Your task to perform on an android device: change timer sound Image 0: 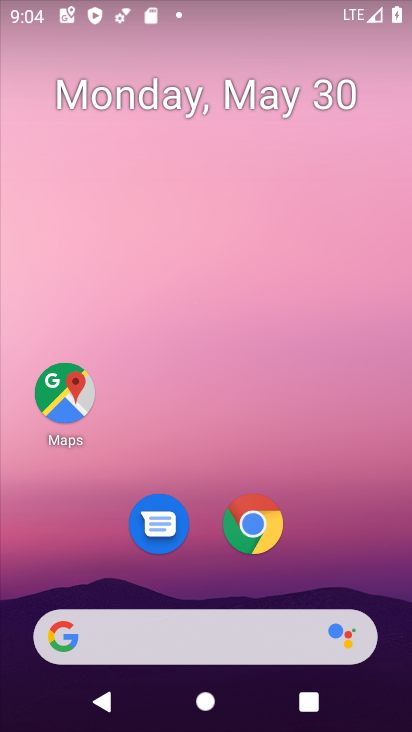
Step 0: drag from (340, 555) to (258, 62)
Your task to perform on an android device: change timer sound Image 1: 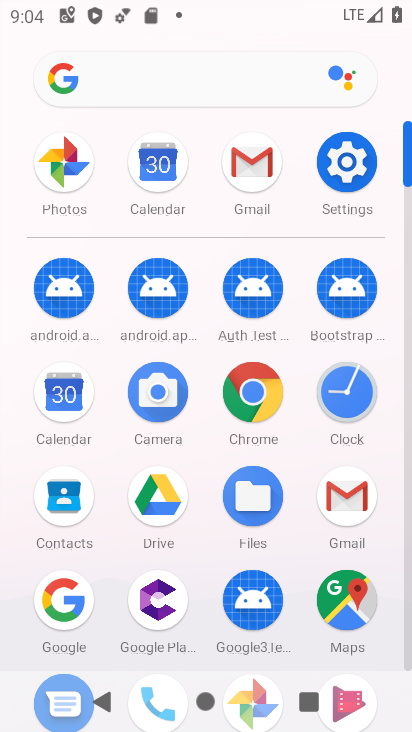
Step 1: click (344, 399)
Your task to perform on an android device: change timer sound Image 2: 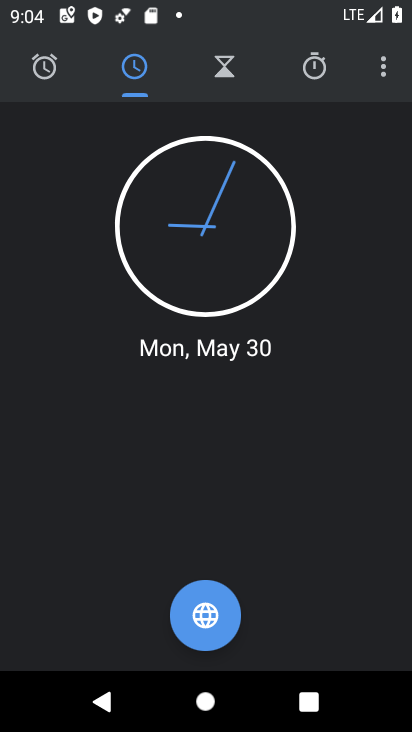
Step 2: click (390, 72)
Your task to perform on an android device: change timer sound Image 3: 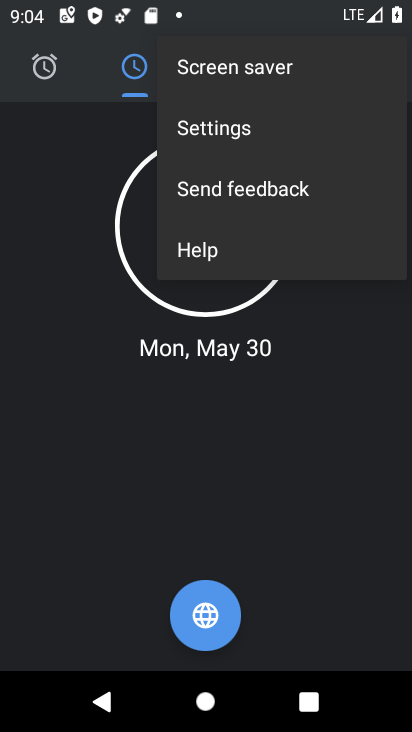
Step 3: click (292, 128)
Your task to perform on an android device: change timer sound Image 4: 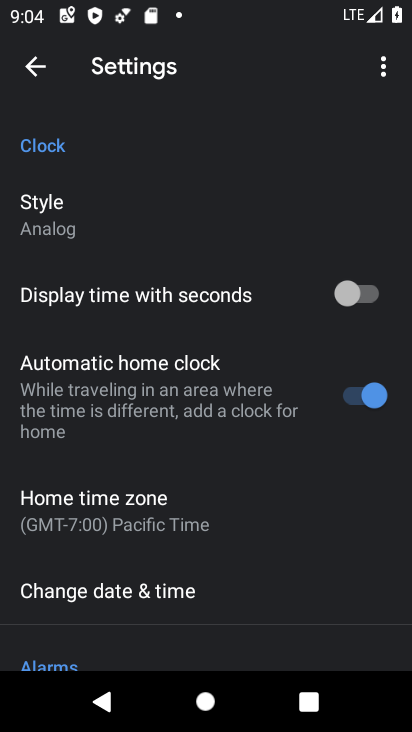
Step 4: drag from (249, 554) to (222, 0)
Your task to perform on an android device: change timer sound Image 5: 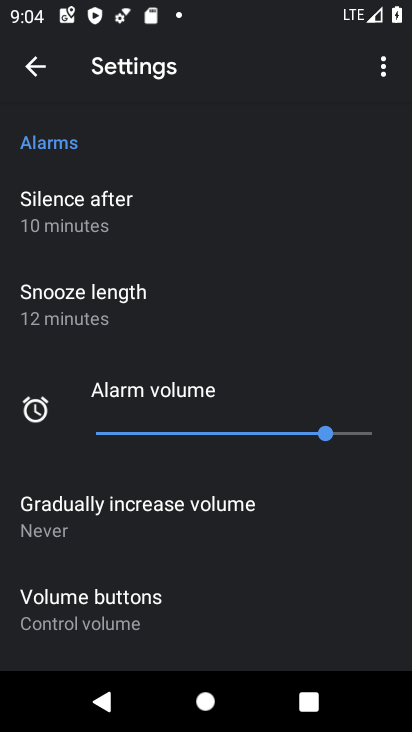
Step 5: drag from (241, 577) to (230, 127)
Your task to perform on an android device: change timer sound Image 6: 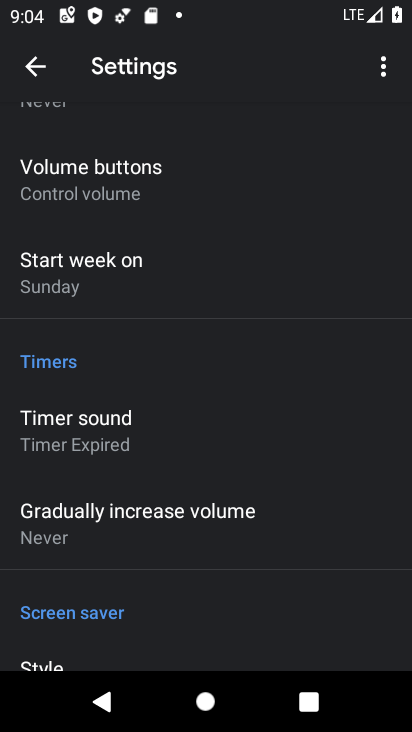
Step 6: click (142, 415)
Your task to perform on an android device: change timer sound Image 7: 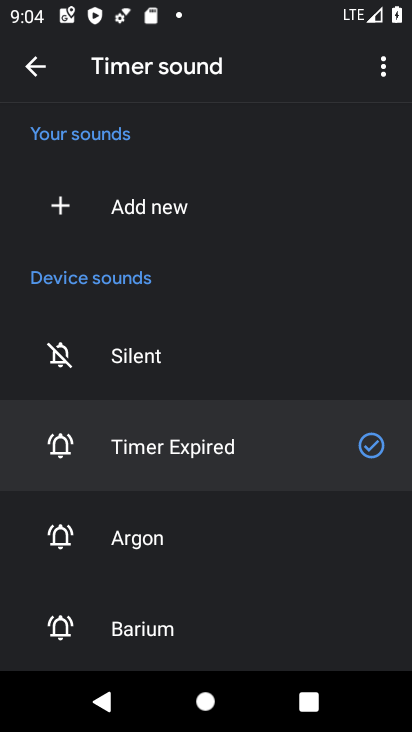
Step 7: click (205, 535)
Your task to perform on an android device: change timer sound Image 8: 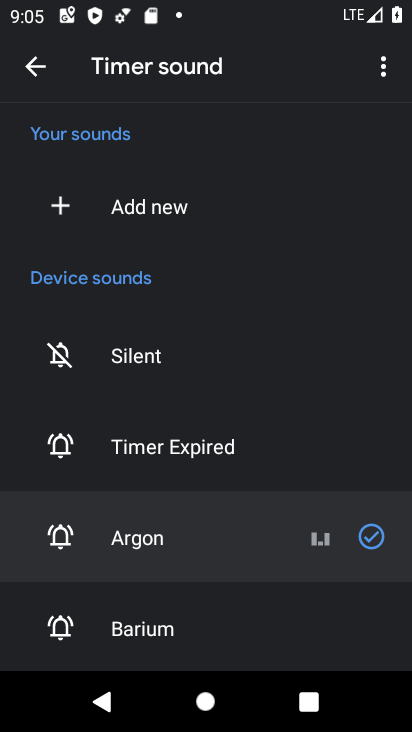
Step 8: task complete